Your task to perform on an android device: Go to ESPN.com Image 0: 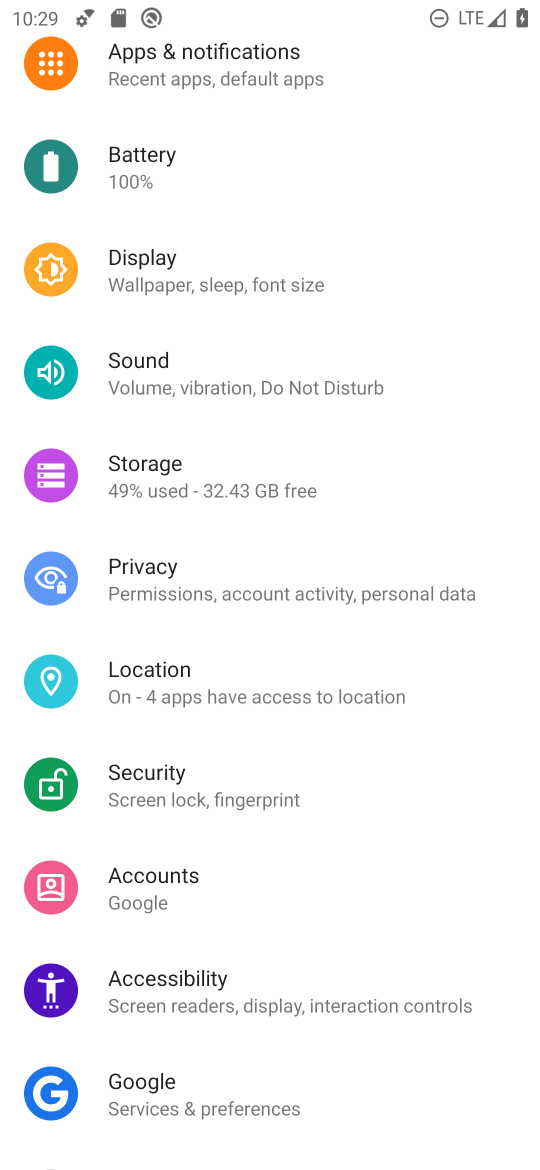
Step 0: press home button
Your task to perform on an android device: Go to ESPN.com Image 1: 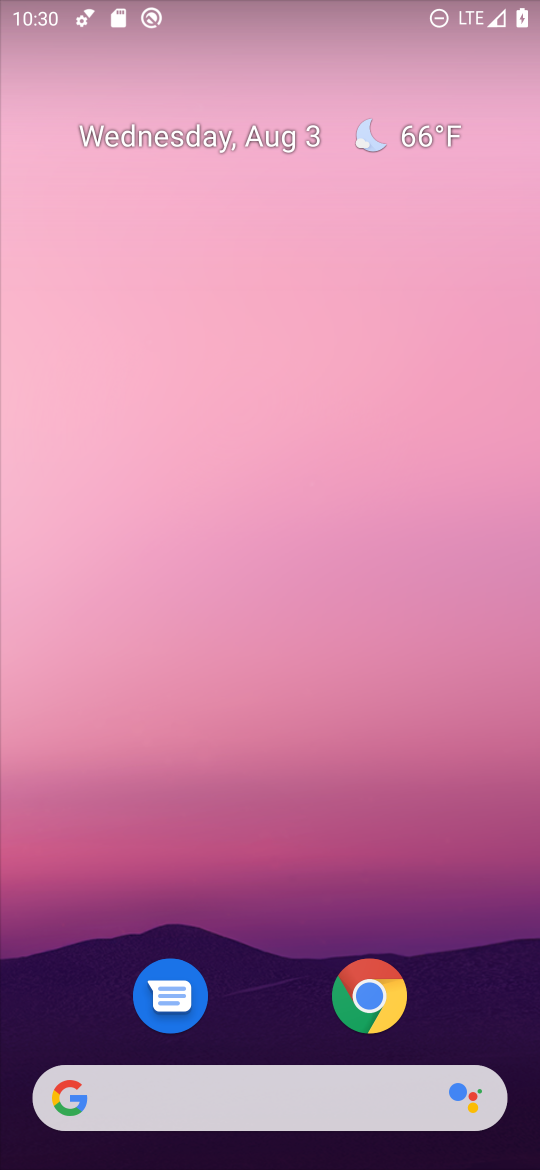
Step 1: click (247, 1093)
Your task to perform on an android device: Go to ESPN.com Image 2: 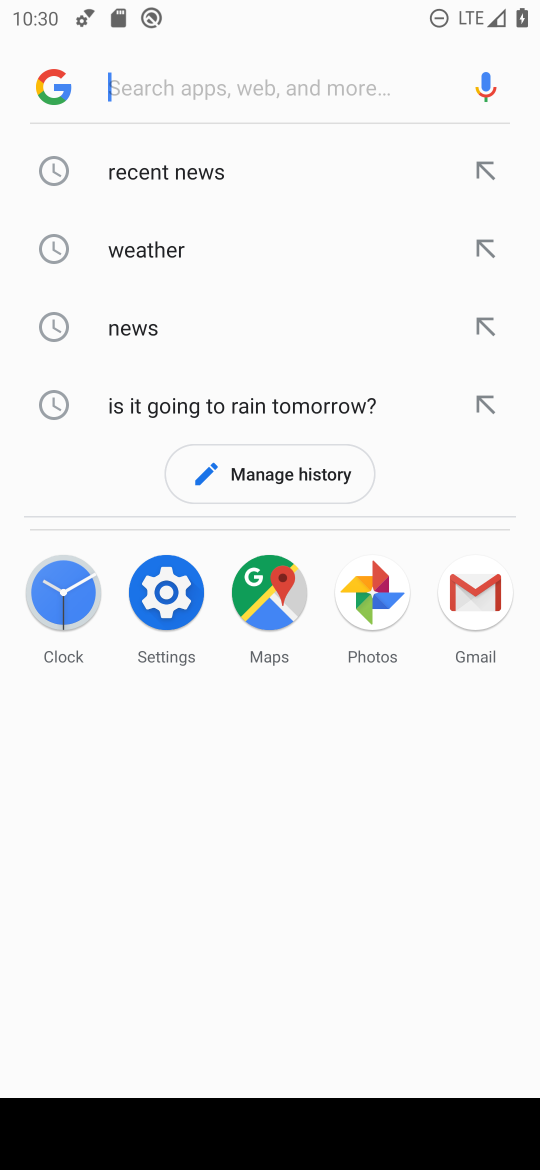
Step 2: type "espn.com"
Your task to perform on an android device: Go to ESPN.com Image 3: 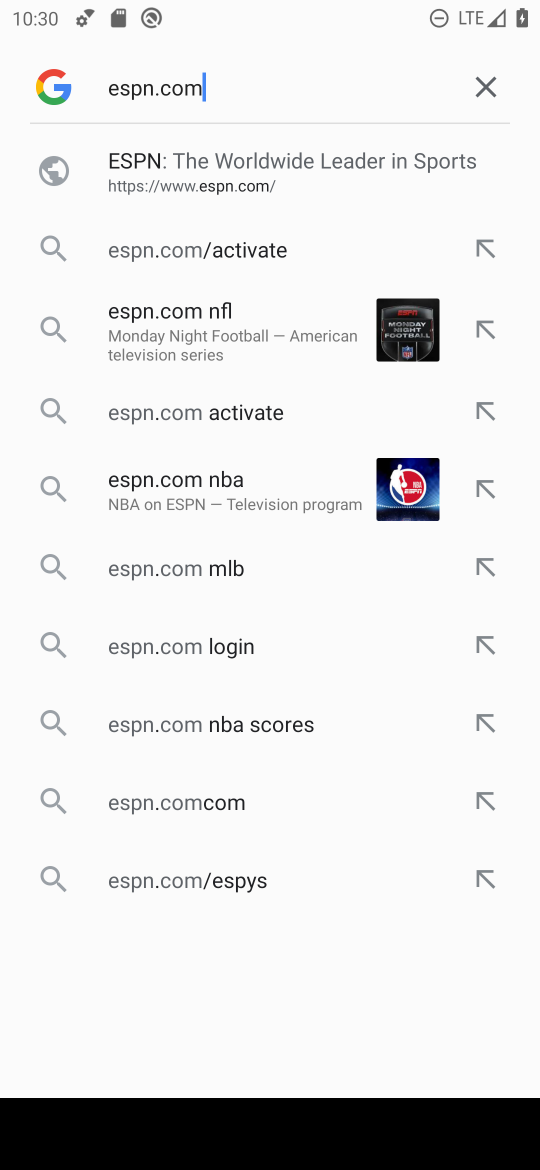
Step 3: click (225, 169)
Your task to perform on an android device: Go to ESPN.com Image 4: 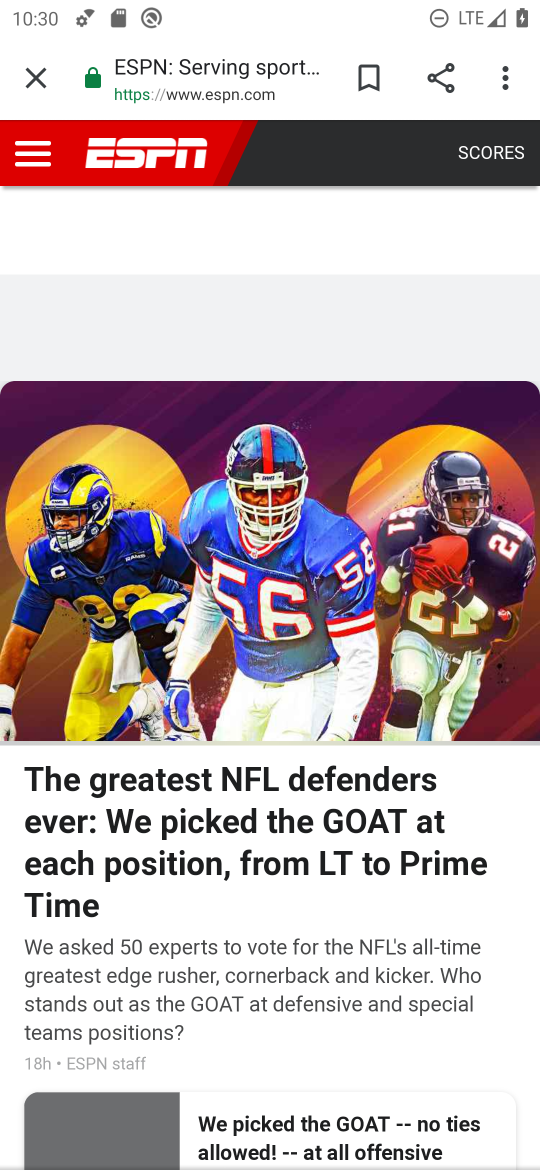
Step 4: task complete